Your task to perform on an android device: move a message to another label in the gmail app Image 0: 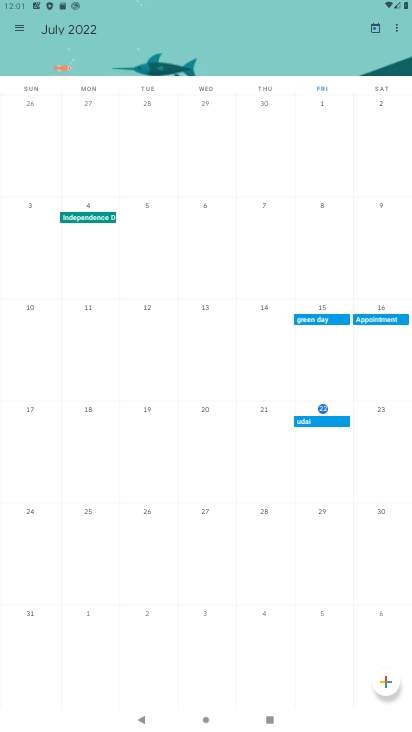
Step 0: press home button
Your task to perform on an android device: move a message to another label in the gmail app Image 1: 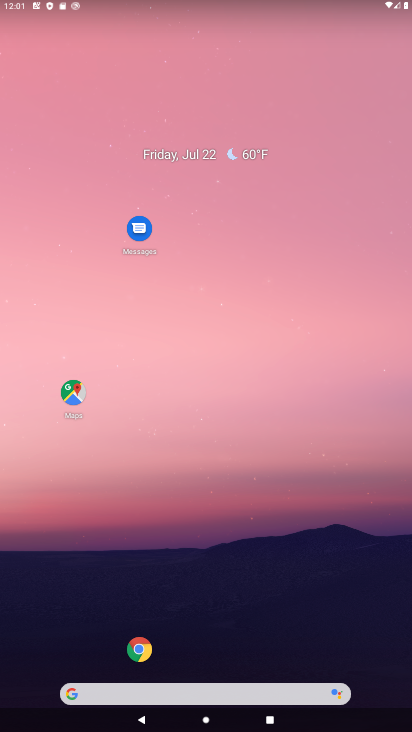
Step 1: drag from (27, 582) to (111, 121)
Your task to perform on an android device: move a message to another label in the gmail app Image 2: 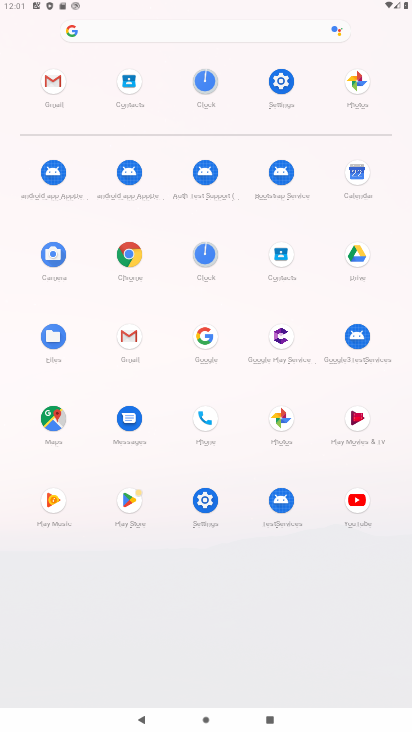
Step 2: click (131, 339)
Your task to perform on an android device: move a message to another label in the gmail app Image 3: 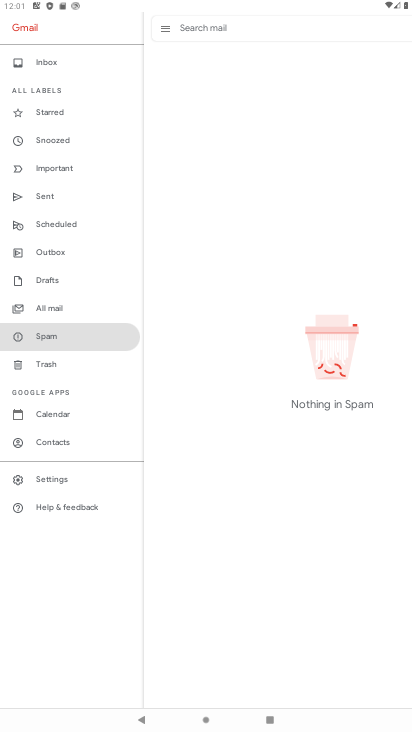
Step 3: click (65, 66)
Your task to perform on an android device: move a message to another label in the gmail app Image 4: 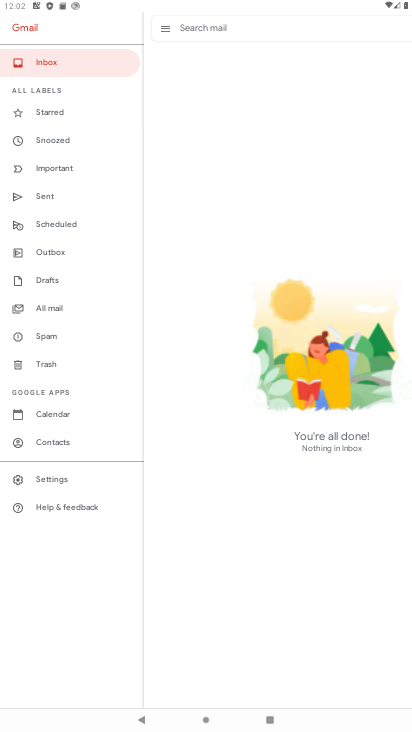
Step 4: task complete